Your task to perform on an android device: toggle improve location accuracy Image 0: 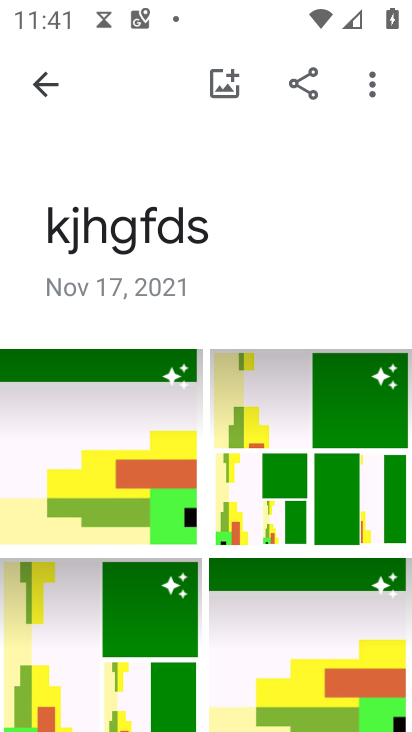
Step 0: press home button
Your task to perform on an android device: toggle improve location accuracy Image 1: 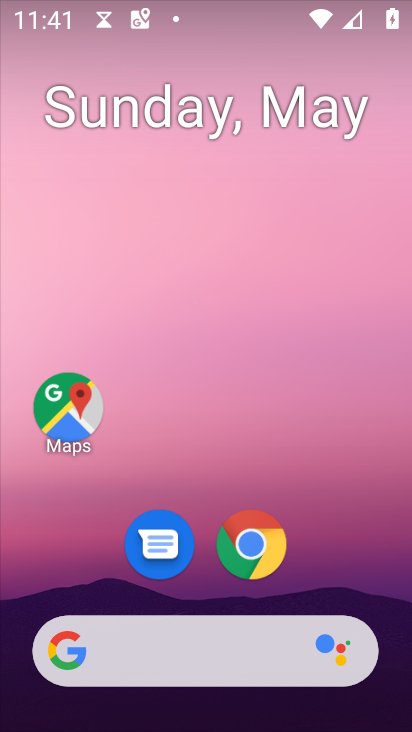
Step 1: drag from (345, 548) to (352, 278)
Your task to perform on an android device: toggle improve location accuracy Image 2: 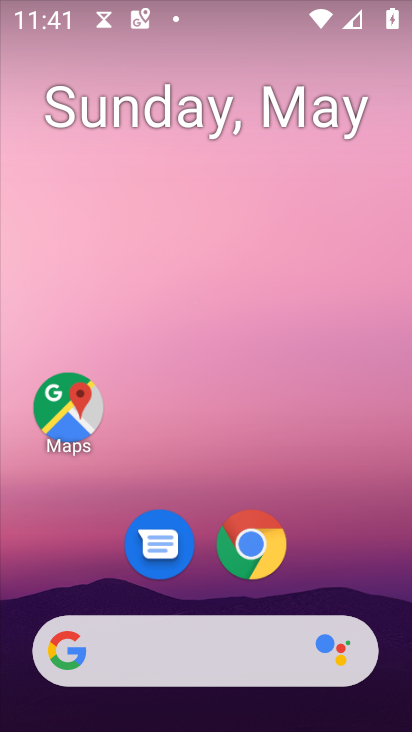
Step 2: drag from (333, 584) to (330, 227)
Your task to perform on an android device: toggle improve location accuracy Image 3: 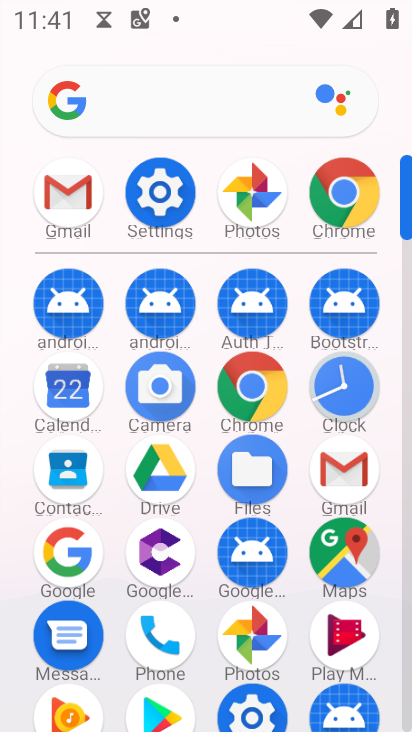
Step 3: click (139, 190)
Your task to perform on an android device: toggle improve location accuracy Image 4: 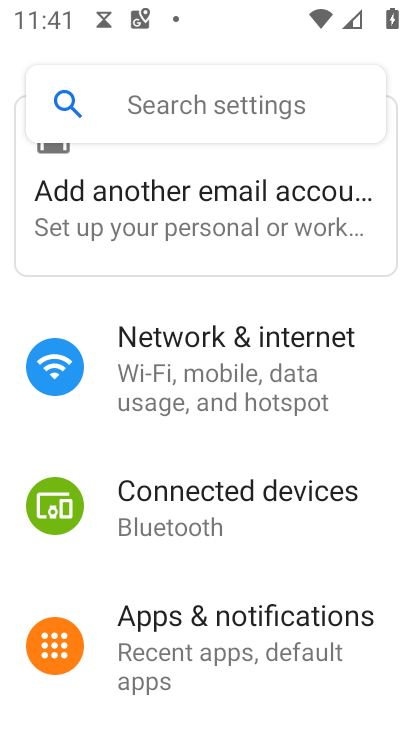
Step 4: drag from (264, 625) to (278, 358)
Your task to perform on an android device: toggle improve location accuracy Image 5: 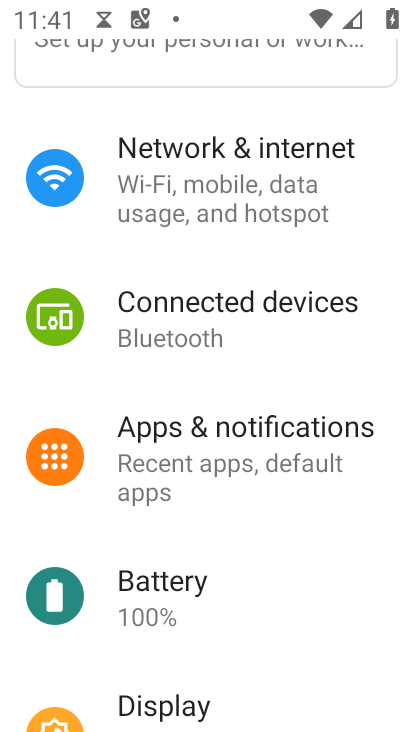
Step 5: click (241, 440)
Your task to perform on an android device: toggle improve location accuracy Image 6: 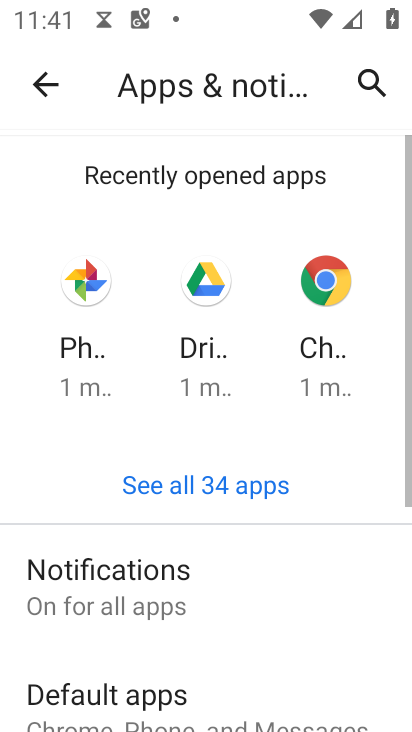
Step 6: click (56, 81)
Your task to perform on an android device: toggle improve location accuracy Image 7: 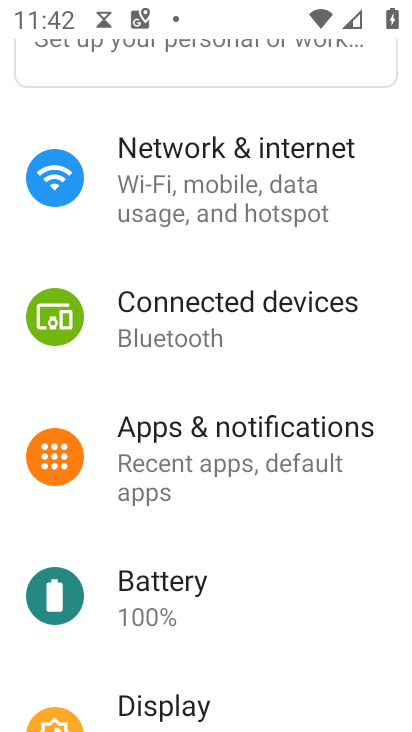
Step 7: drag from (227, 604) to (297, 238)
Your task to perform on an android device: toggle improve location accuracy Image 8: 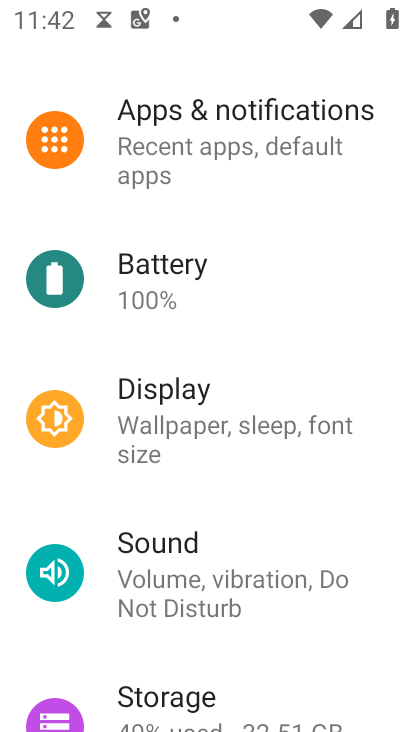
Step 8: drag from (253, 612) to (310, 251)
Your task to perform on an android device: toggle improve location accuracy Image 9: 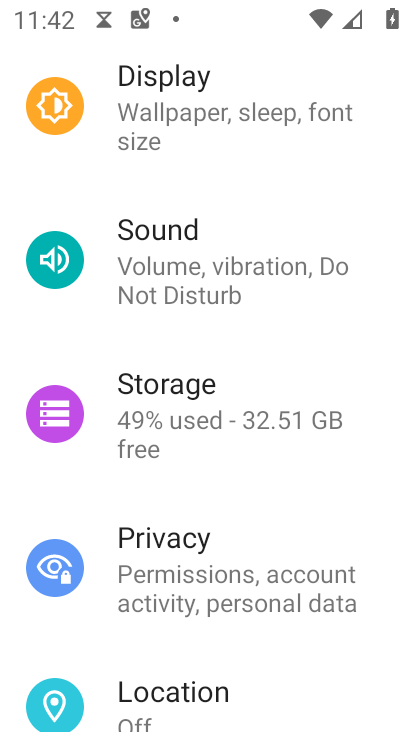
Step 9: drag from (206, 656) to (225, 436)
Your task to perform on an android device: toggle improve location accuracy Image 10: 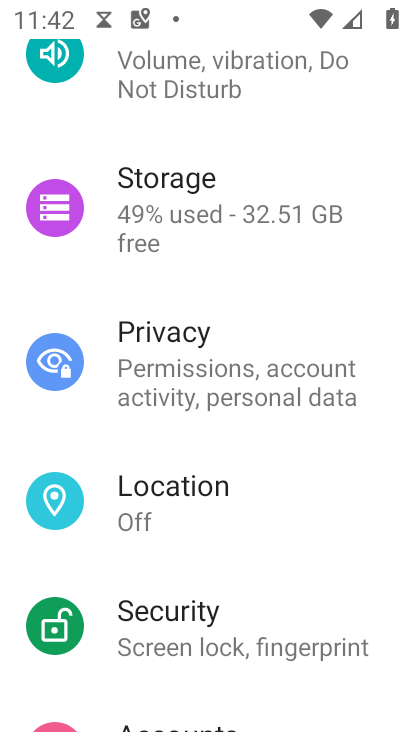
Step 10: click (174, 515)
Your task to perform on an android device: toggle improve location accuracy Image 11: 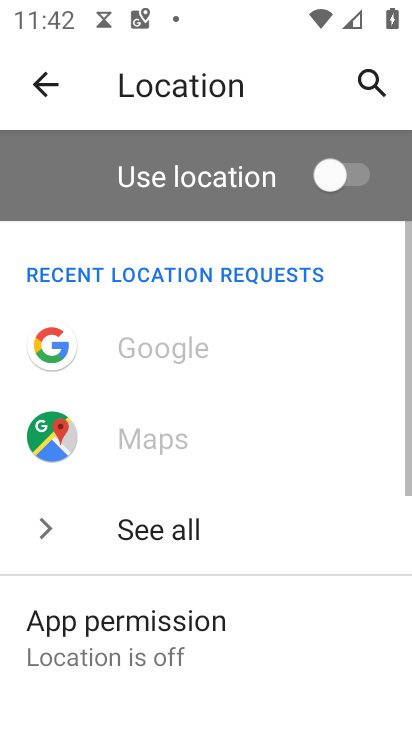
Step 11: drag from (235, 632) to (228, 156)
Your task to perform on an android device: toggle improve location accuracy Image 12: 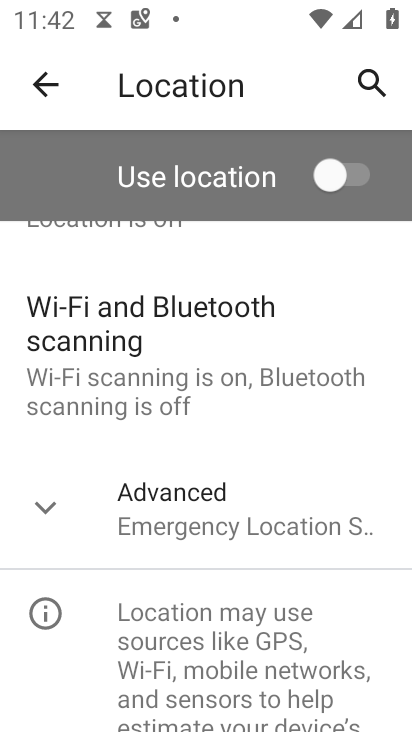
Step 12: click (204, 518)
Your task to perform on an android device: toggle improve location accuracy Image 13: 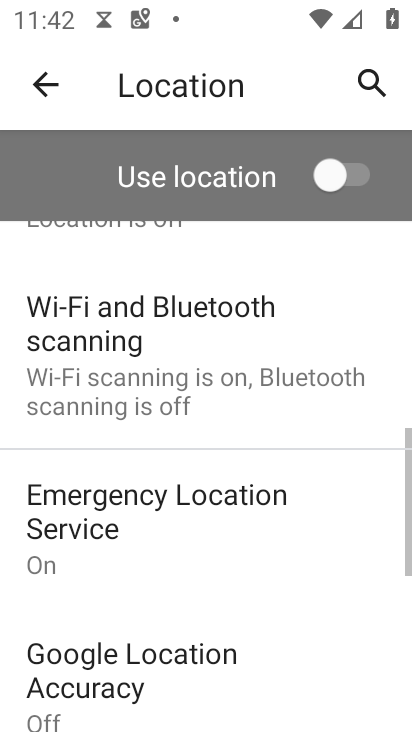
Step 13: drag from (215, 636) to (255, 347)
Your task to perform on an android device: toggle improve location accuracy Image 14: 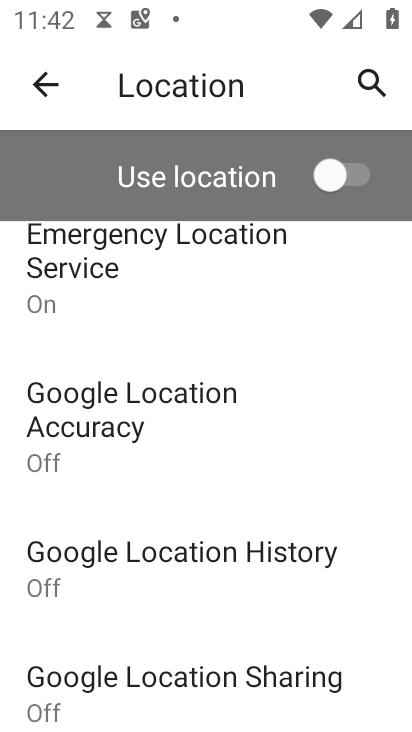
Step 14: drag from (228, 575) to (247, 459)
Your task to perform on an android device: toggle improve location accuracy Image 15: 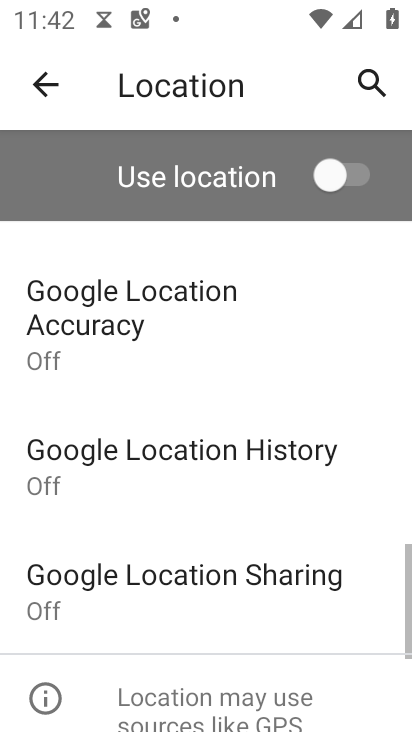
Step 15: click (205, 359)
Your task to perform on an android device: toggle improve location accuracy Image 16: 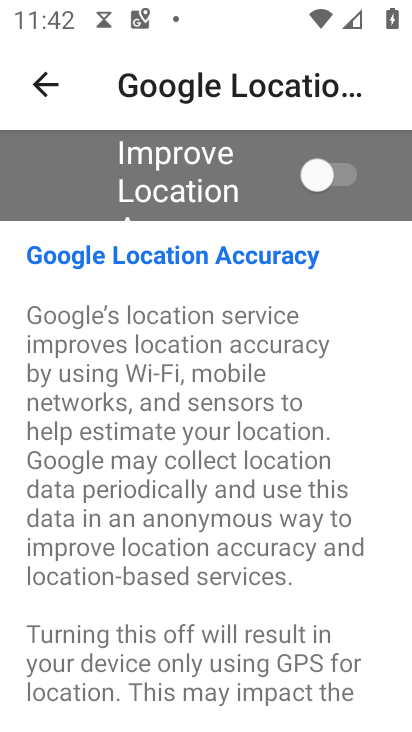
Step 16: click (339, 165)
Your task to perform on an android device: toggle improve location accuracy Image 17: 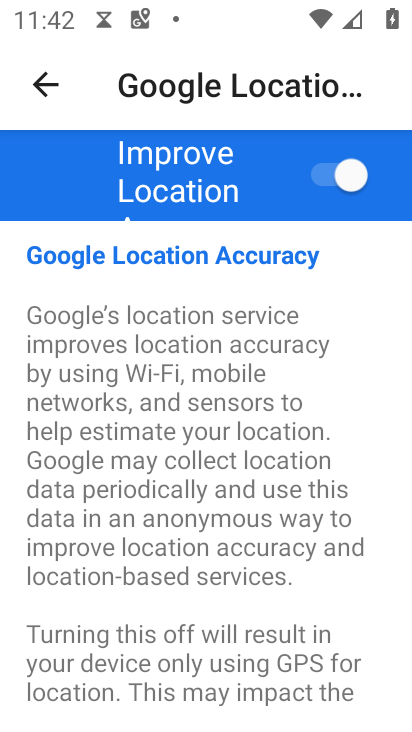
Step 17: task complete